Your task to perform on an android device: install app "Life360: Find Family & Friends" Image 0: 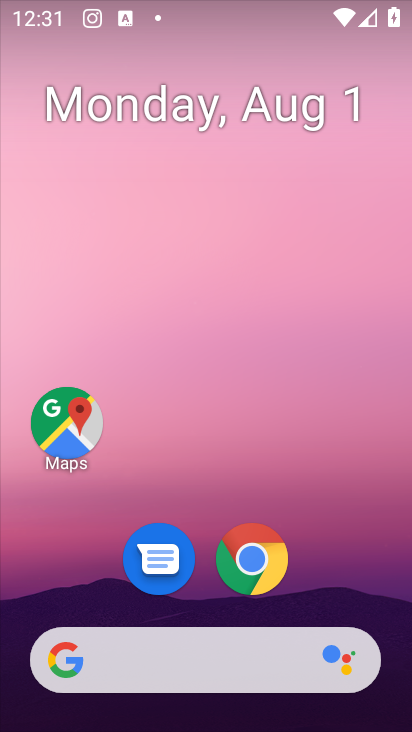
Step 0: drag from (77, 577) to (222, 19)
Your task to perform on an android device: install app "Life360: Find Family & Friends" Image 1: 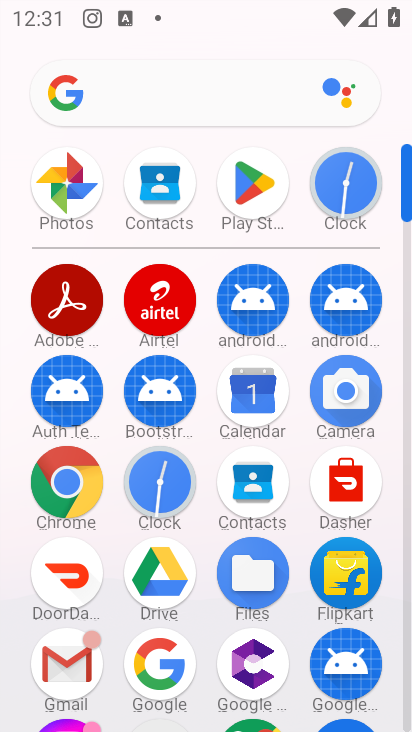
Step 1: click (251, 184)
Your task to perform on an android device: install app "Life360: Find Family & Friends" Image 2: 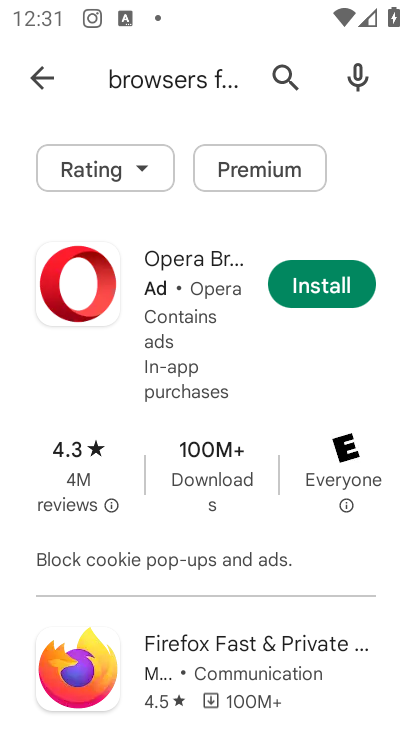
Step 2: click (265, 75)
Your task to perform on an android device: install app "Life360: Find Family & Friends" Image 3: 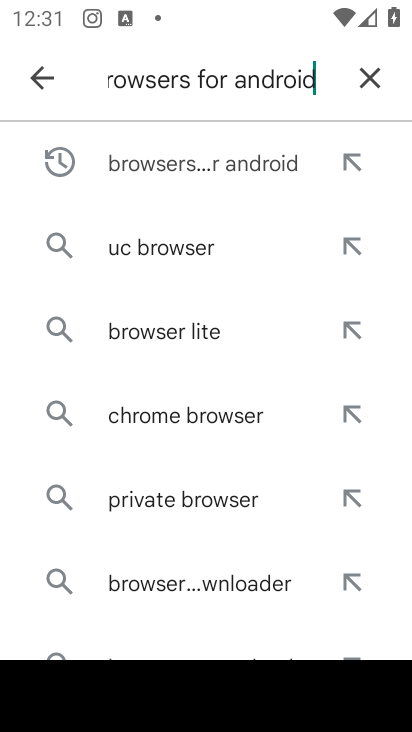
Step 3: click (352, 75)
Your task to perform on an android device: install app "Life360: Find Family & Friends" Image 4: 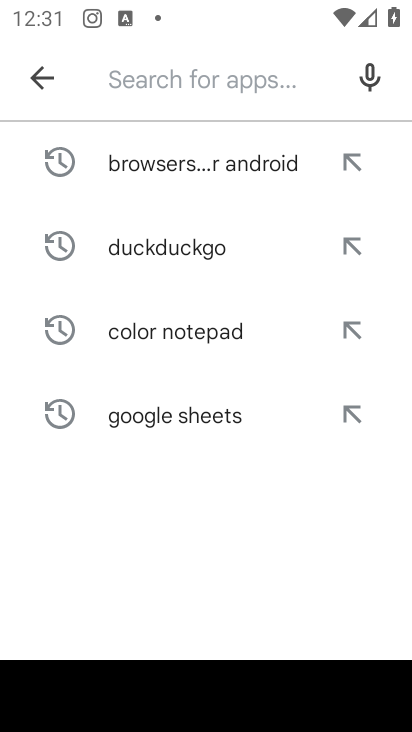
Step 4: click (215, 92)
Your task to perform on an android device: install app "Life360: Find Family & Friends" Image 5: 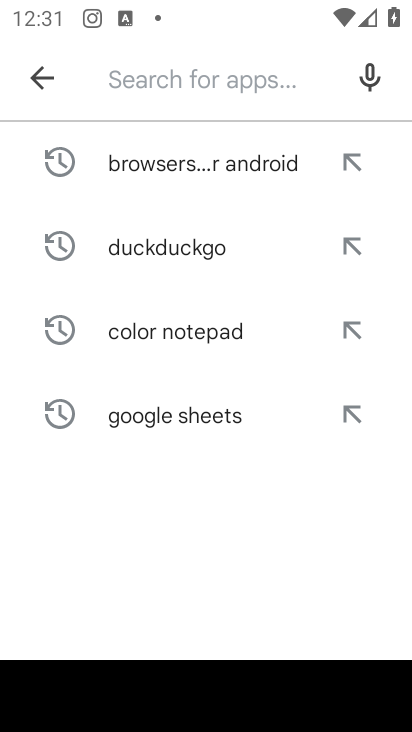
Step 5: type "life 360"
Your task to perform on an android device: install app "Life360: Find Family & Friends" Image 6: 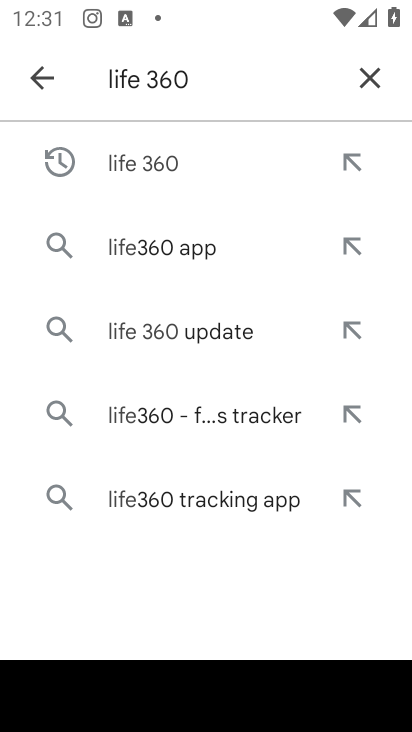
Step 6: click (177, 168)
Your task to perform on an android device: install app "Life360: Find Family & Friends" Image 7: 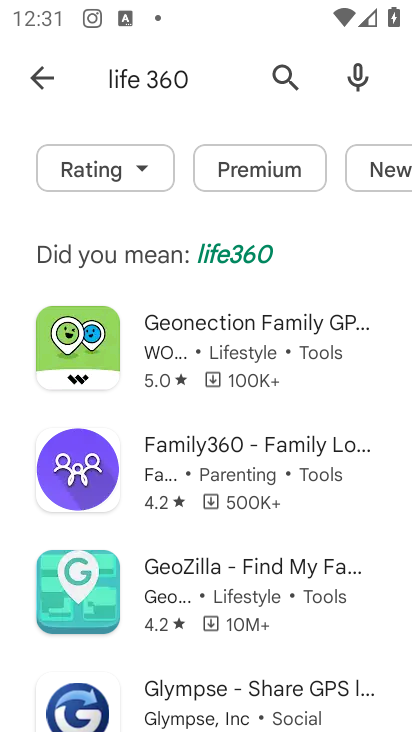
Step 7: task complete